Your task to perform on an android device: Search for logitech g pro on walmart, select the first entry, add it to the cart, then select checkout. Image 0: 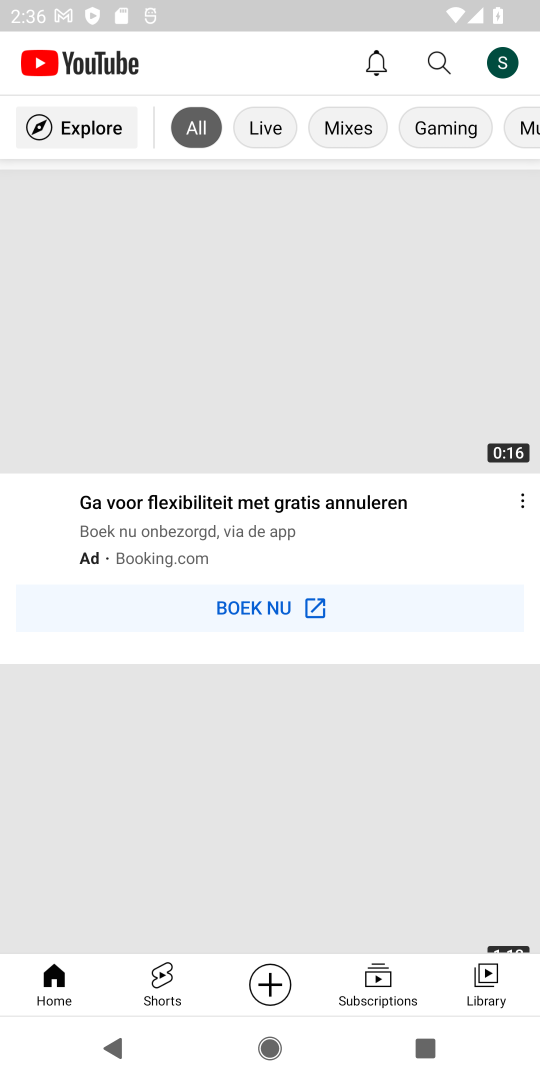
Step 0: press home button
Your task to perform on an android device: Search for logitech g pro on walmart, select the first entry, add it to the cart, then select checkout. Image 1: 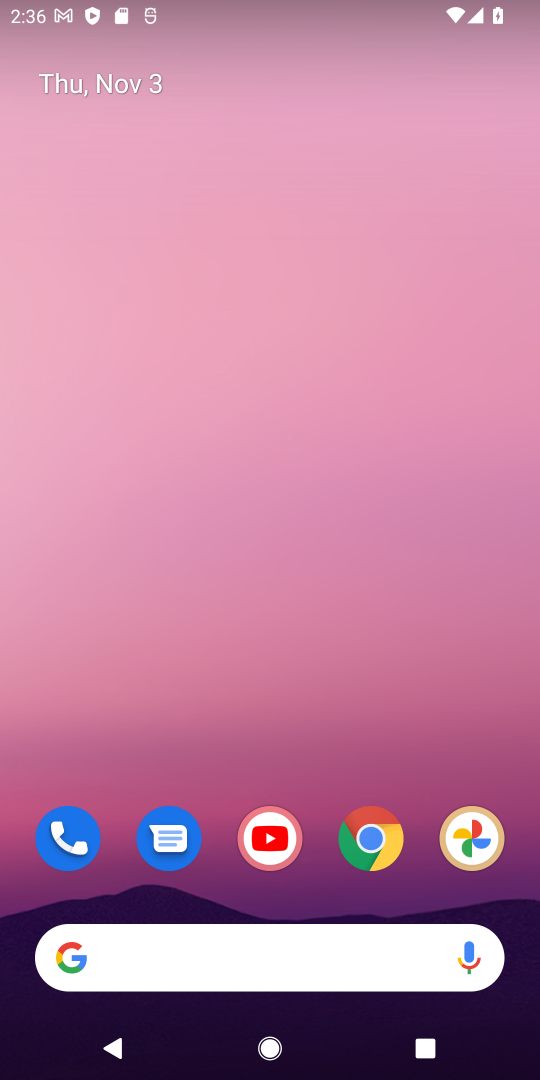
Step 1: drag from (317, 872) to (368, 93)
Your task to perform on an android device: Search for logitech g pro on walmart, select the first entry, add it to the cart, then select checkout. Image 2: 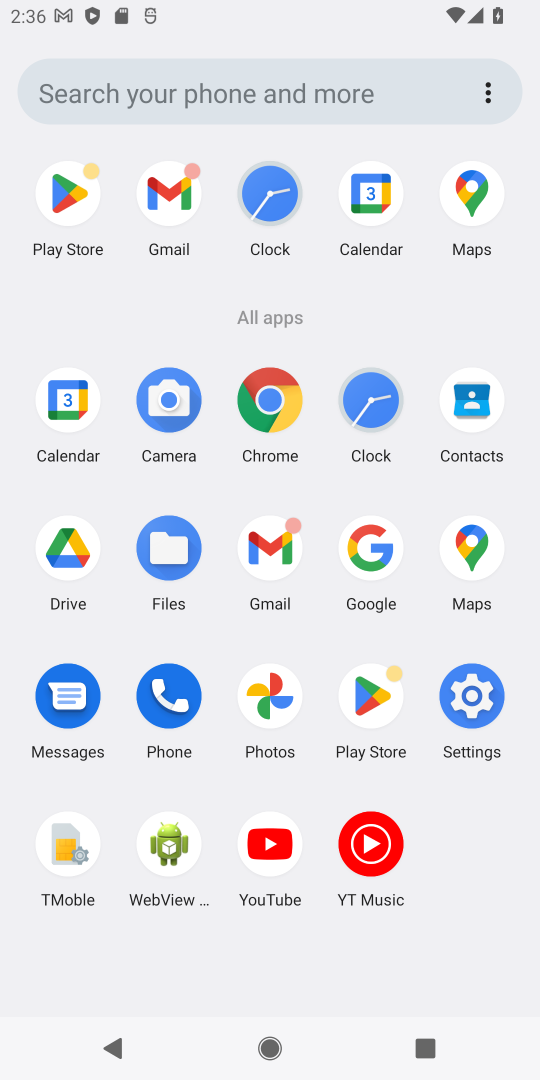
Step 2: click (272, 407)
Your task to perform on an android device: Search for logitech g pro on walmart, select the first entry, add it to the cart, then select checkout. Image 3: 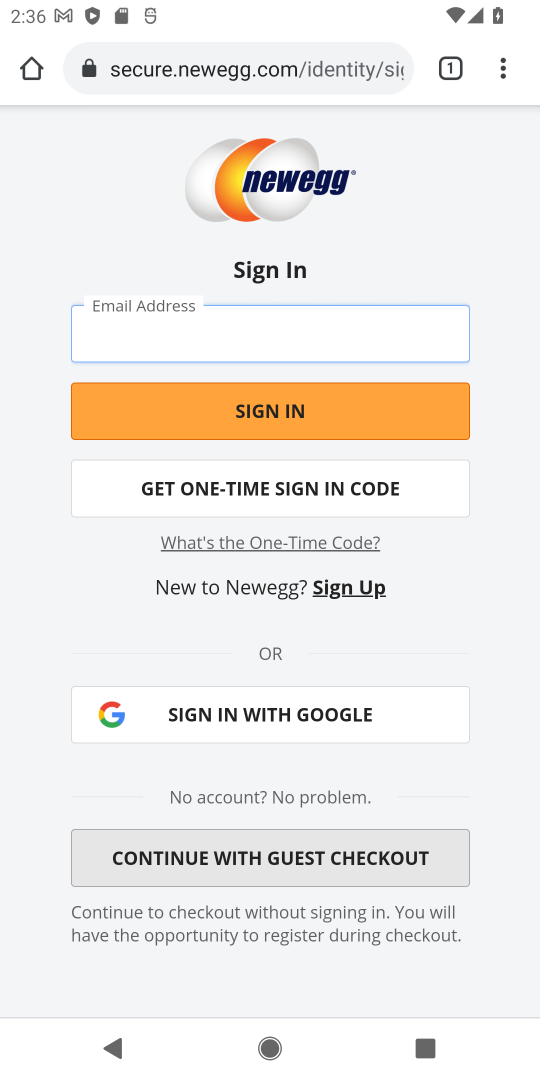
Step 3: click (265, 68)
Your task to perform on an android device: Search for logitech g pro on walmart, select the first entry, add it to the cart, then select checkout. Image 4: 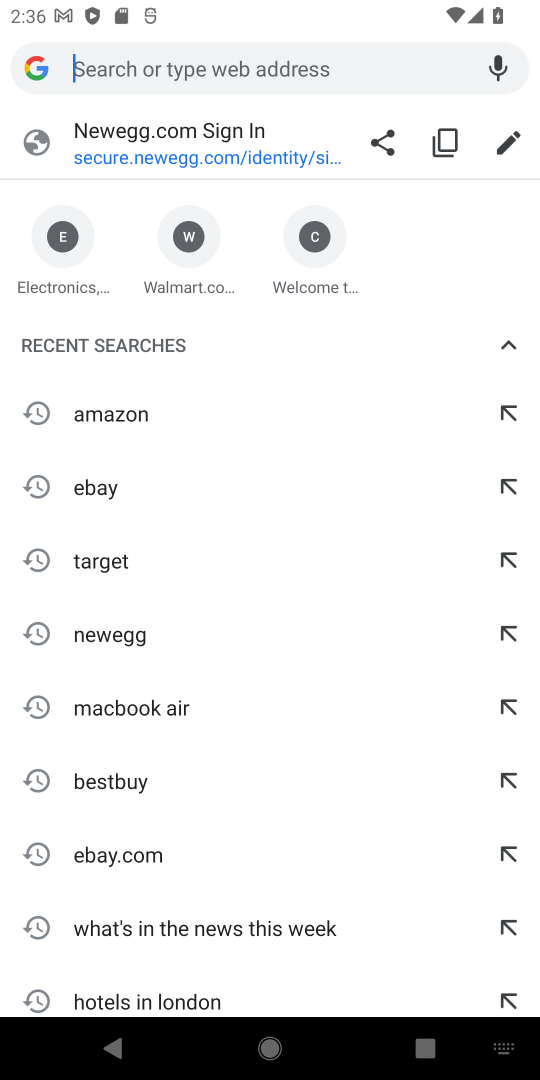
Step 4: type "walmart.com"
Your task to perform on an android device: Search for logitech g pro on walmart, select the first entry, add it to the cart, then select checkout. Image 5: 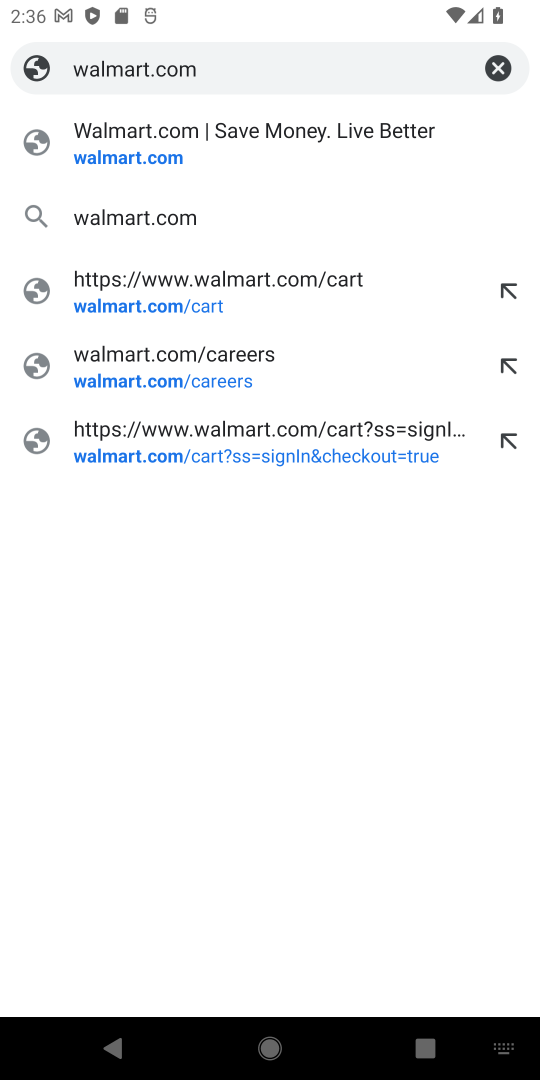
Step 5: press enter
Your task to perform on an android device: Search for logitech g pro on walmart, select the first entry, add it to the cart, then select checkout. Image 6: 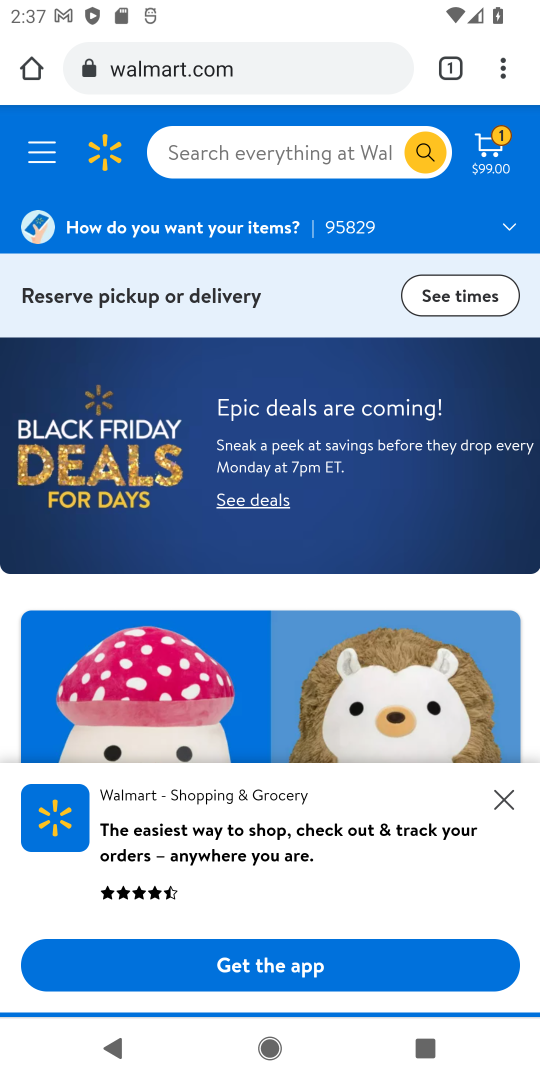
Step 6: click (233, 160)
Your task to perform on an android device: Search for logitech g pro on walmart, select the first entry, add it to the cart, then select checkout. Image 7: 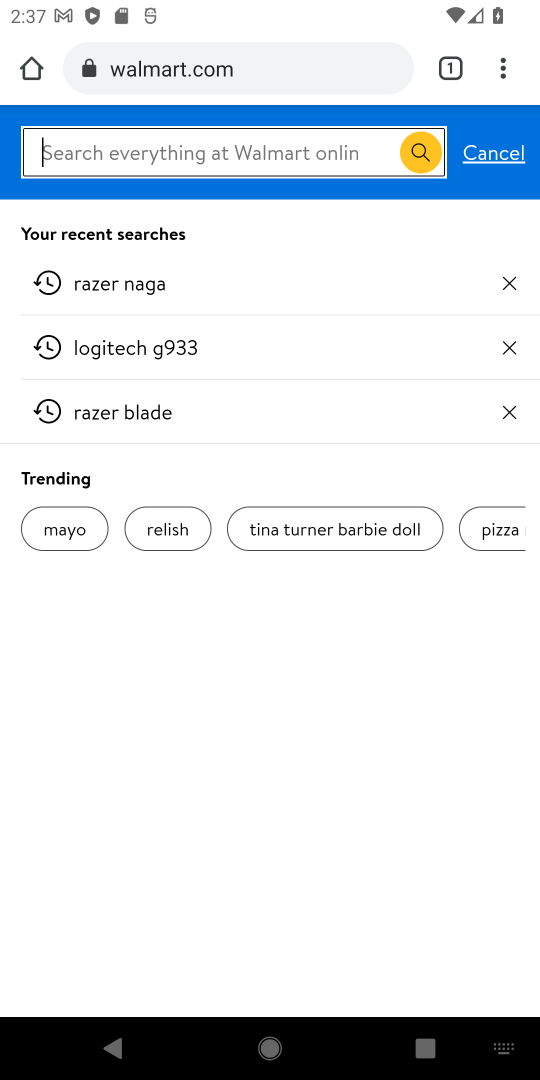
Step 7: type "logitech g pro"
Your task to perform on an android device: Search for logitech g pro on walmart, select the first entry, add it to the cart, then select checkout. Image 8: 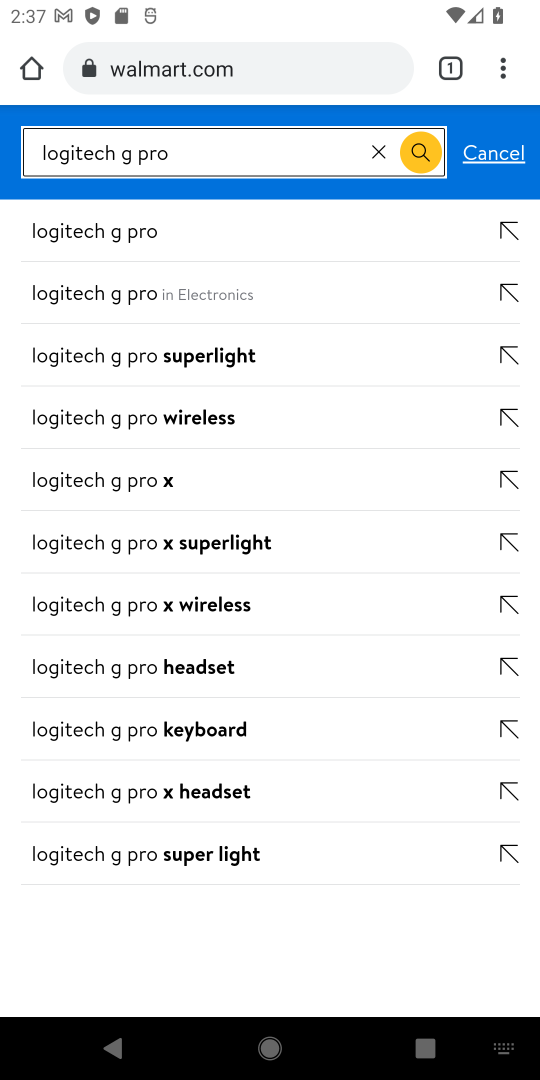
Step 8: press enter
Your task to perform on an android device: Search for logitech g pro on walmart, select the first entry, add it to the cart, then select checkout. Image 9: 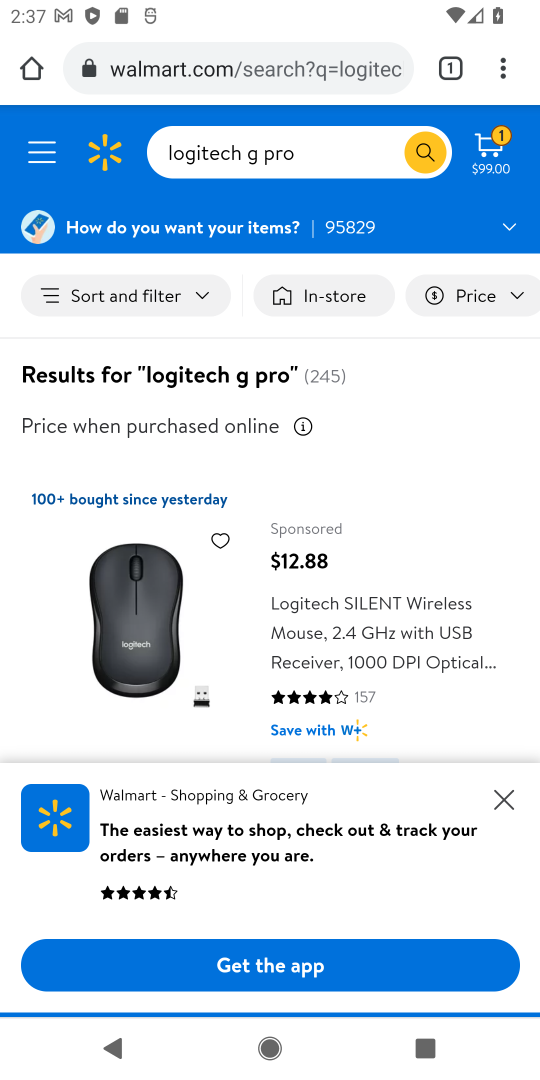
Step 9: drag from (436, 673) to (509, 81)
Your task to perform on an android device: Search for logitech g pro on walmart, select the first entry, add it to the cart, then select checkout. Image 10: 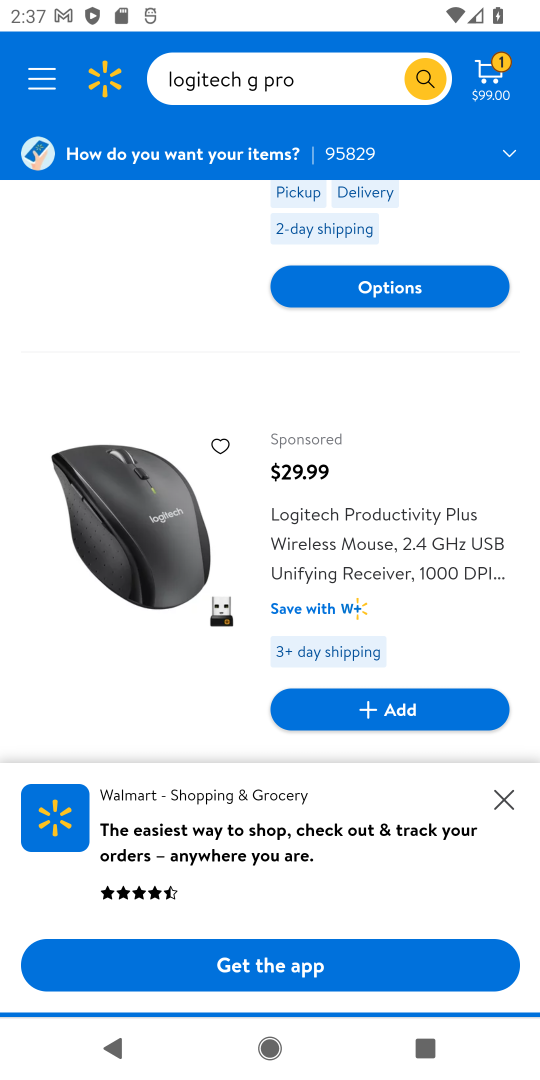
Step 10: drag from (423, 595) to (434, 133)
Your task to perform on an android device: Search for logitech g pro on walmart, select the first entry, add it to the cart, then select checkout. Image 11: 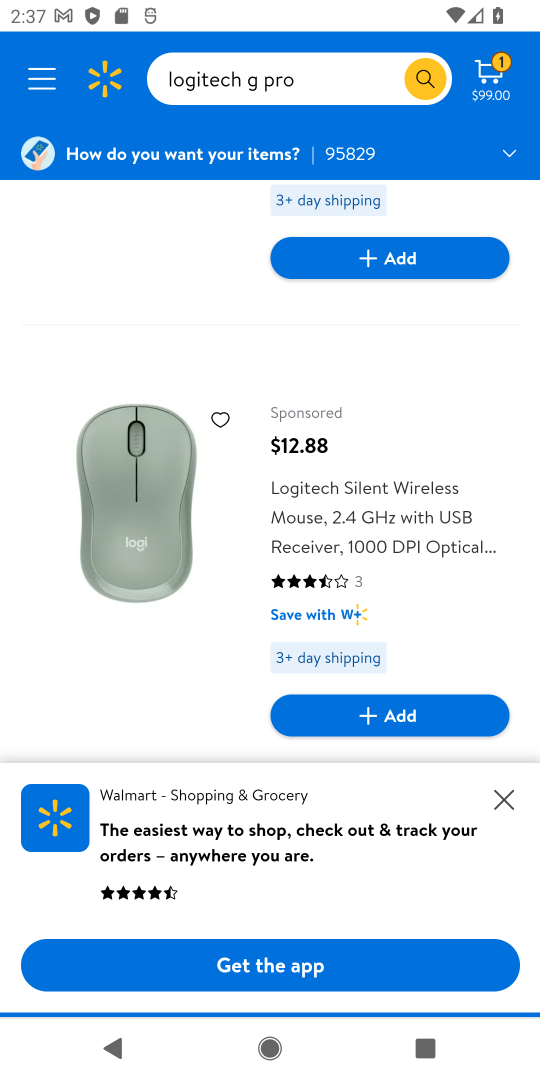
Step 11: drag from (437, 571) to (455, 125)
Your task to perform on an android device: Search for logitech g pro on walmart, select the first entry, add it to the cart, then select checkout. Image 12: 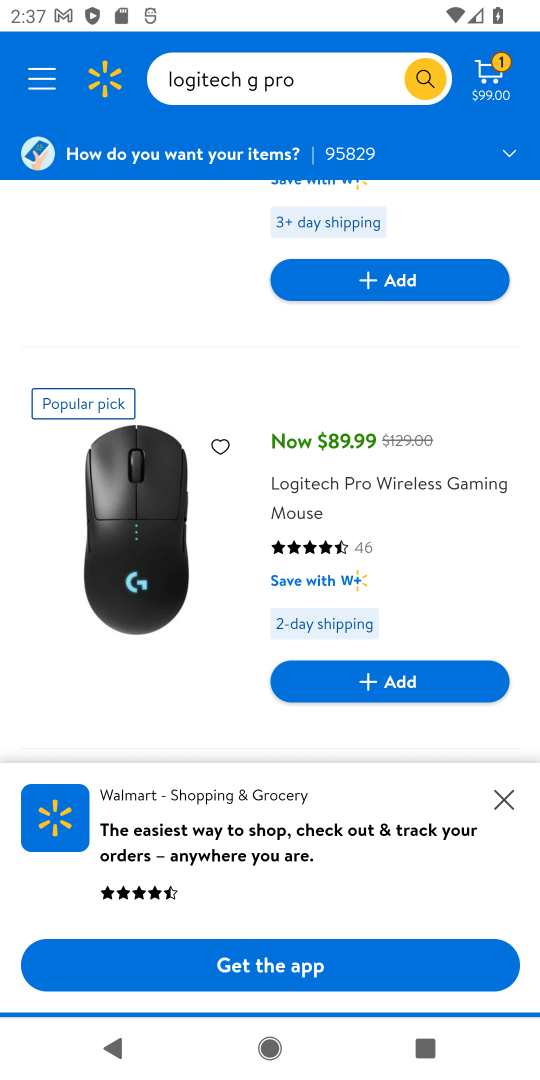
Step 12: click (440, 681)
Your task to perform on an android device: Search for logitech g pro on walmart, select the first entry, add it to the cart, then select checkout. Image 13: 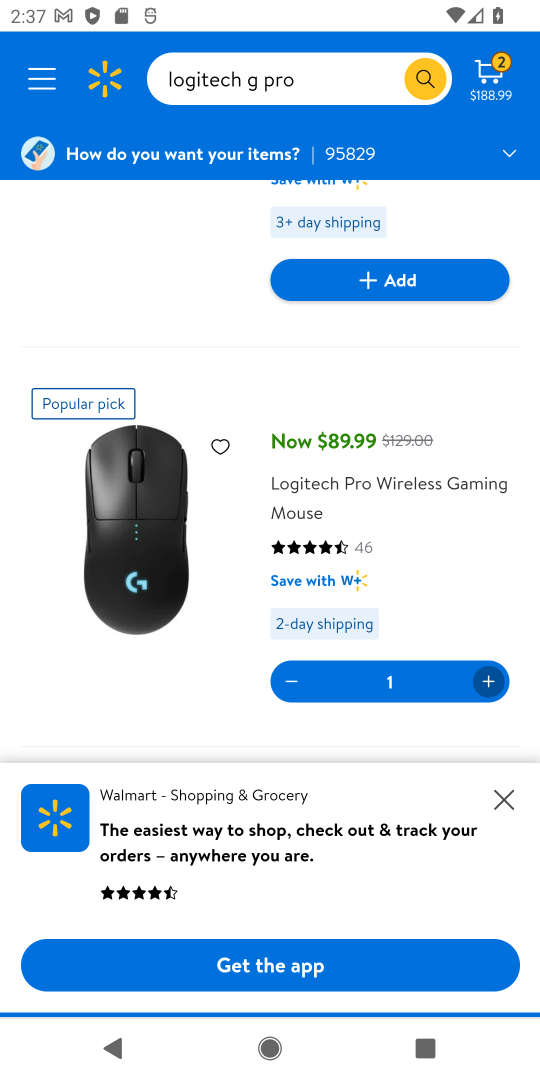
Step 13: click (299, 508)
Your task to perform on an android device: Search for logitech g pro on walmart, select the first entry, add it to the cart, then select checkout. Image 14: 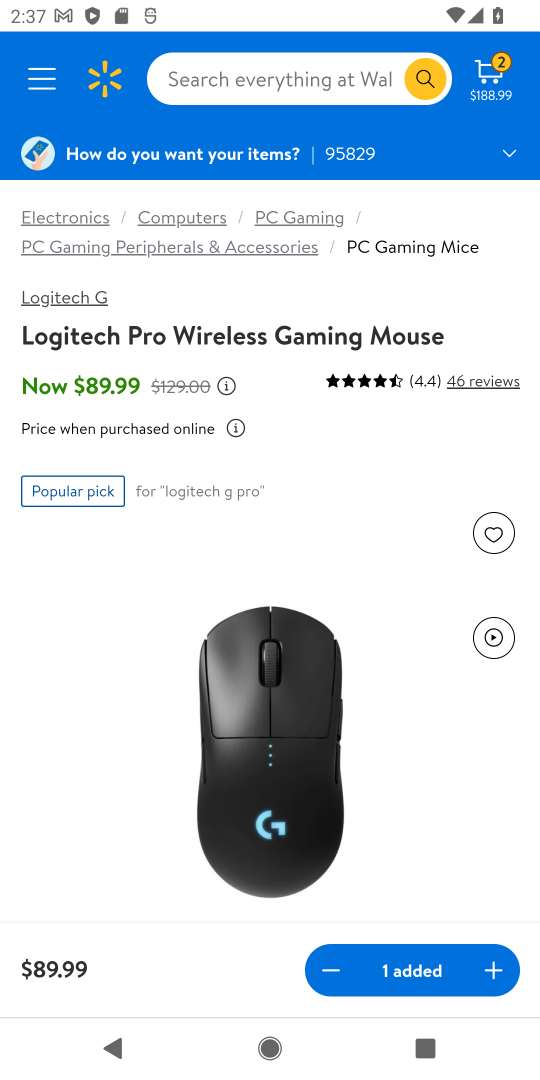
Step 14: drag from (424, 838) to (393, 338)
Your task to perform on an android device: Search for logitech g pro on walmart, select the first entry, add it to the cart, then select checkout. Image 15: 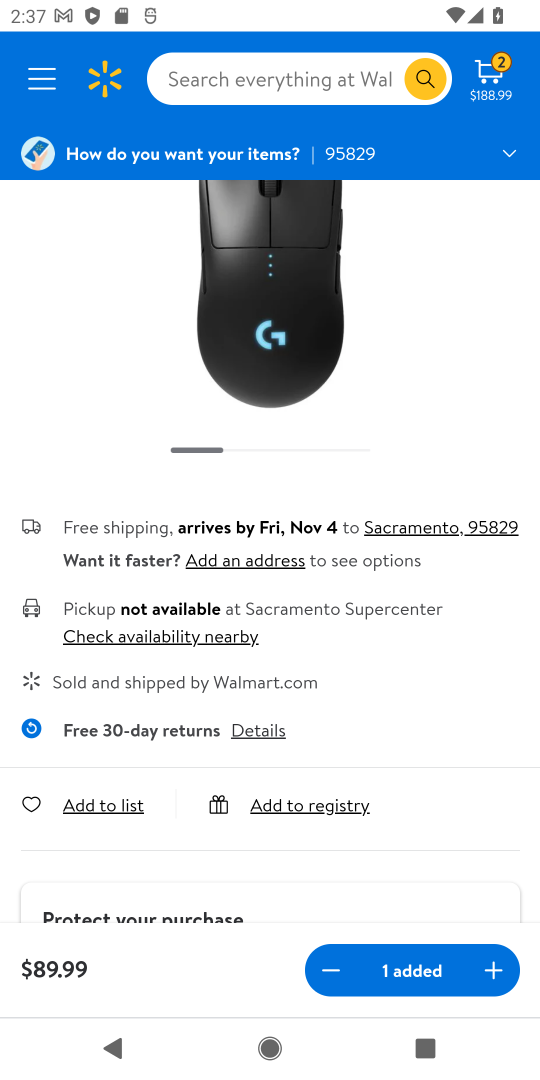
Step 15: drag from (404, 849) to (431, 328)
Your task to perform on an android device: Search for logitech g pro on walmart, select the first entry, add it to the cart, then select checkout. Image 16: 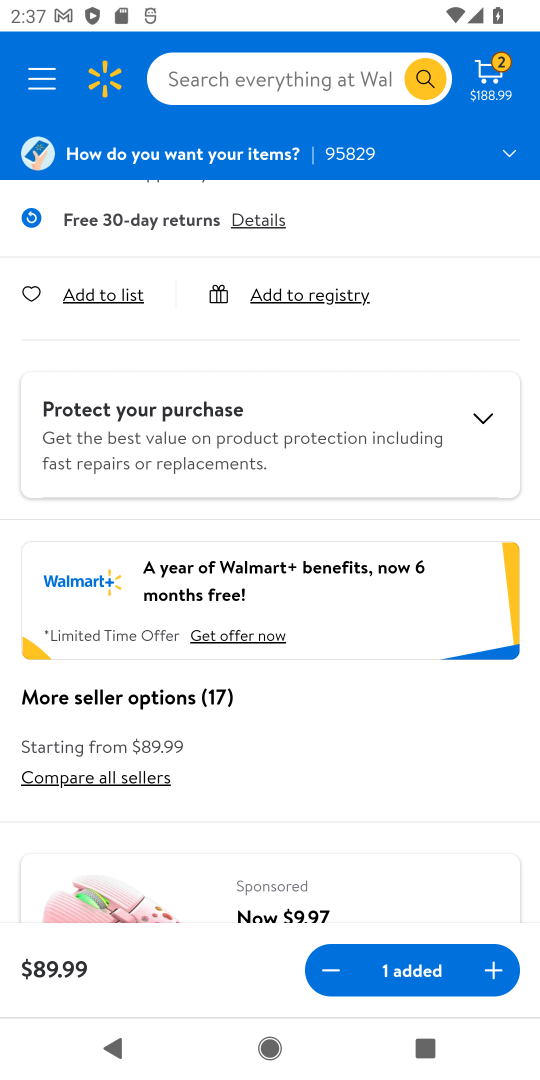
Step 16: drag from (336, 871) to (414, 440)
Your task to perform on an android device: Search for logitech g pro on walmart, select the first entry, add it to the cart, then select checkout. Image 17: 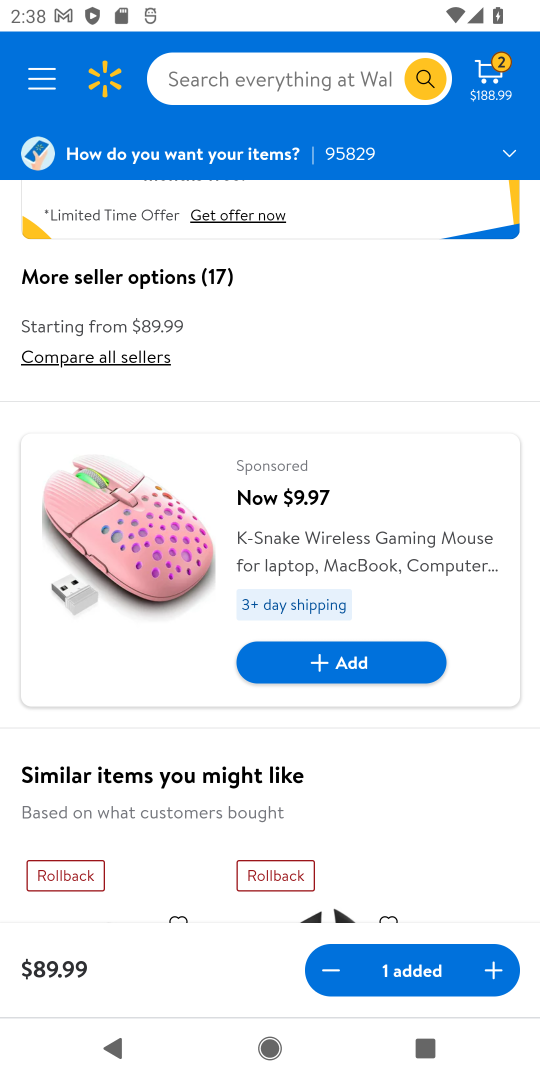
Step 17: drag from (380, 721) to (418, 560)
Your task to perform on an android device: Search for logitech g pro on walmart, select the first entry, add it to the cart, then select checkout. Image 18: 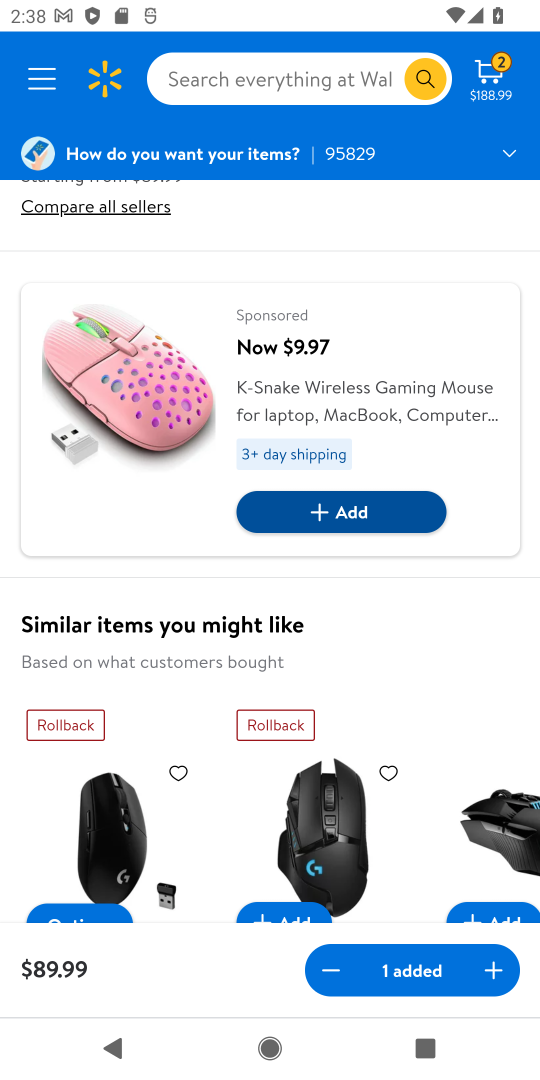
Step 18: drag from (413, 891) to (382, 306)
Your task to perform on an android device: Search for logitech g pro on walmart, select the first entry, add it to the cart, then select checkout. Image 19: 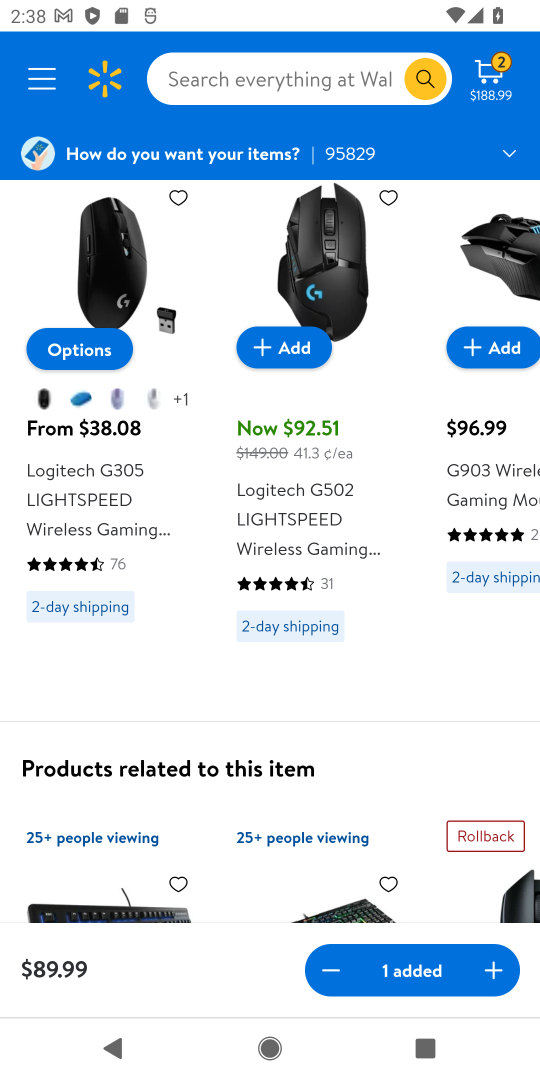
Step 19: drag from (320, 823) to (348, 342)
Your task to perform on an android device: Search for logitech g pro on walmart, select the first entry, add it to the cart, then select checkout. Image 20: 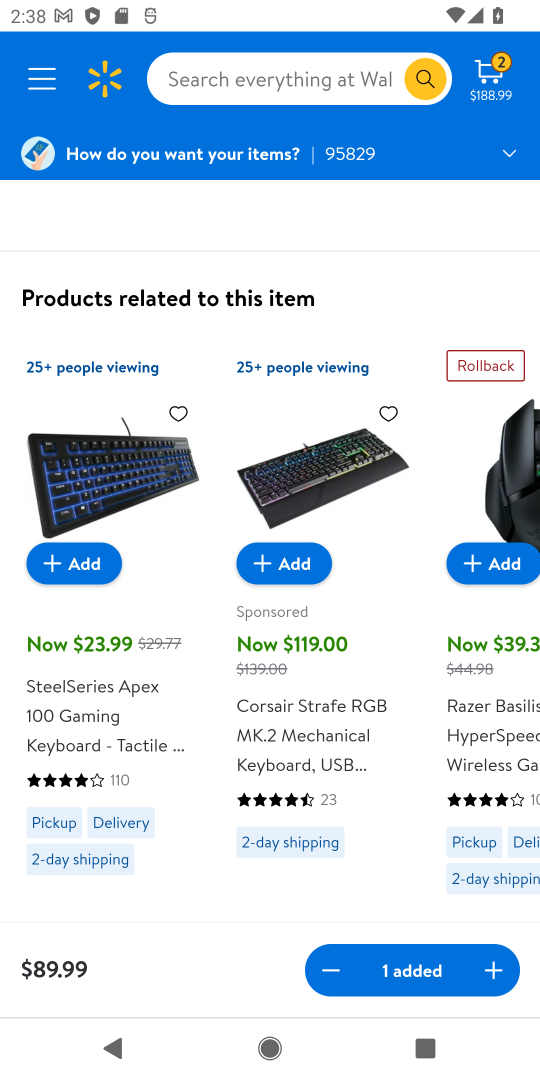
Step 20: drag from (198, 898) to (259, 513)
Your task to perform on an android device: Search for logitech g pro on walmart, select the first entry, add it to the cart, then select checkout. Image 21: 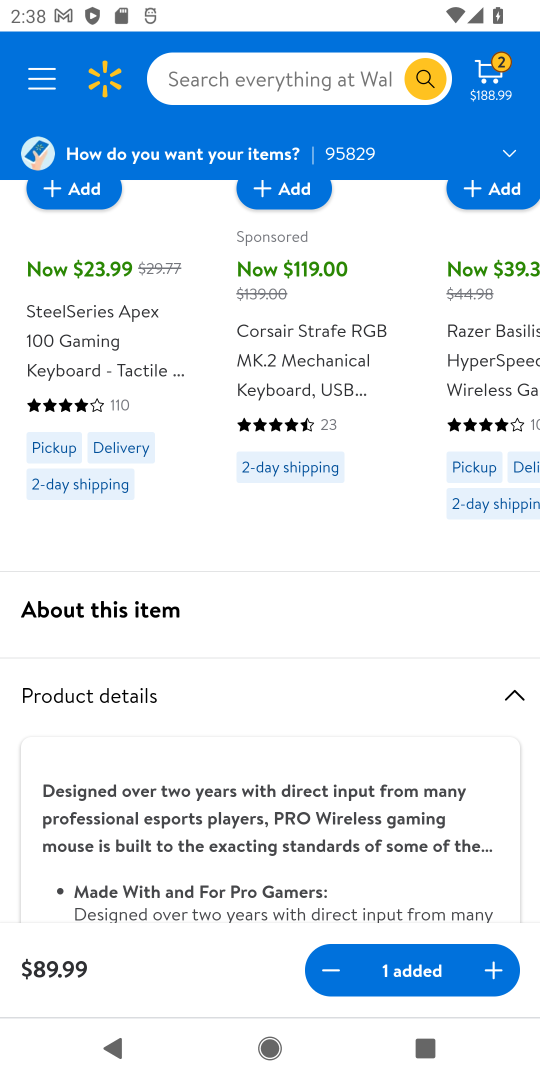
Step 21: drag from (342, 905) to (317, 582)
Your task to perform on an android device: Search for logitech g pro on walmart, select the first entry, add it to the cart, then select checkout. Image 22: 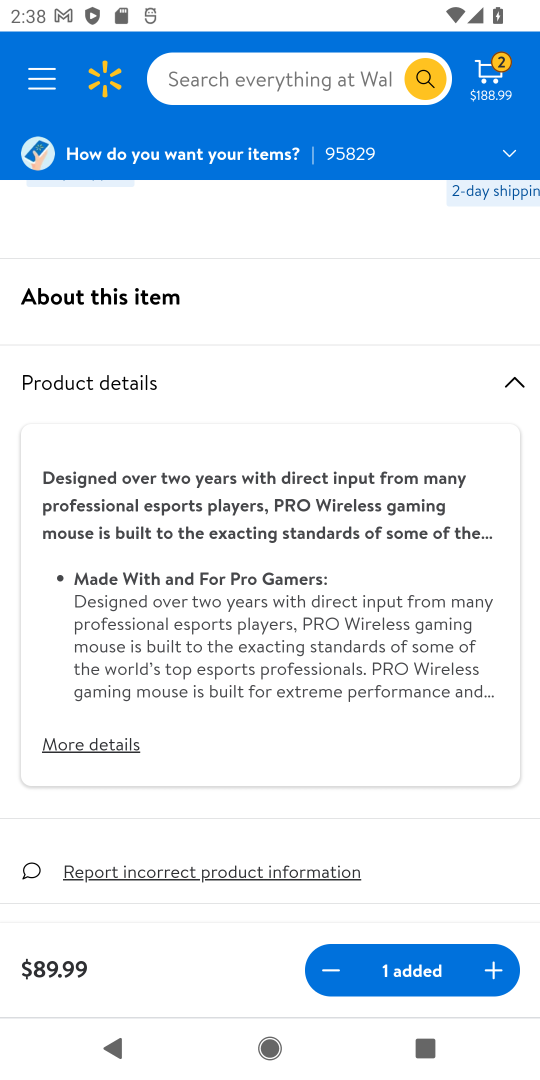
Step 22: drag from (284, 827) to (325, 518)
Your task to perform on an android device: Search for logitech g pro on walmart, select the first entry, add it to the cart, then select checkout. Image 23: 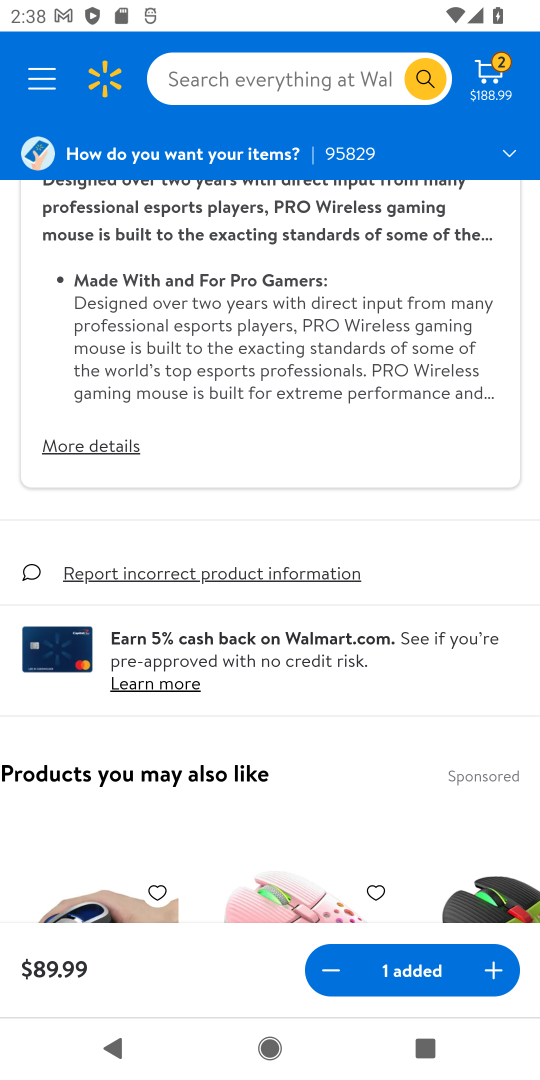
Step 23: drag from (319, 884) to (275, 582)
Your task to perform on an android device: Search for logitech g pro on walmart, select the first entry, add it to the cart, then select checkout. Image 24: 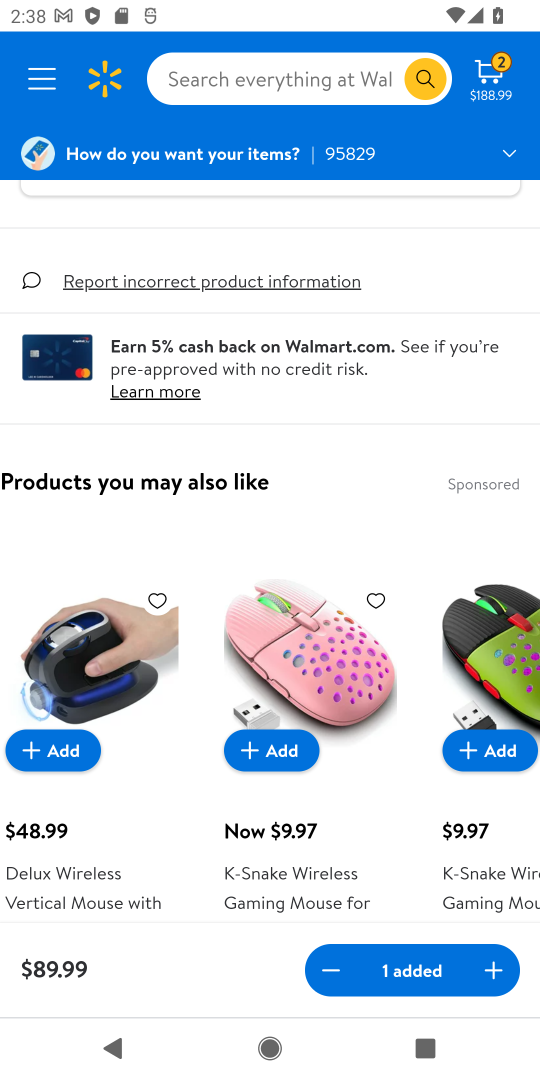
Step 24: drag from (197, 895) to (272, 681)
Your task to perform on an android device: Search for logitech g pro on walmart, select the first entry, add it to the cart, then select checkout. Image 25: 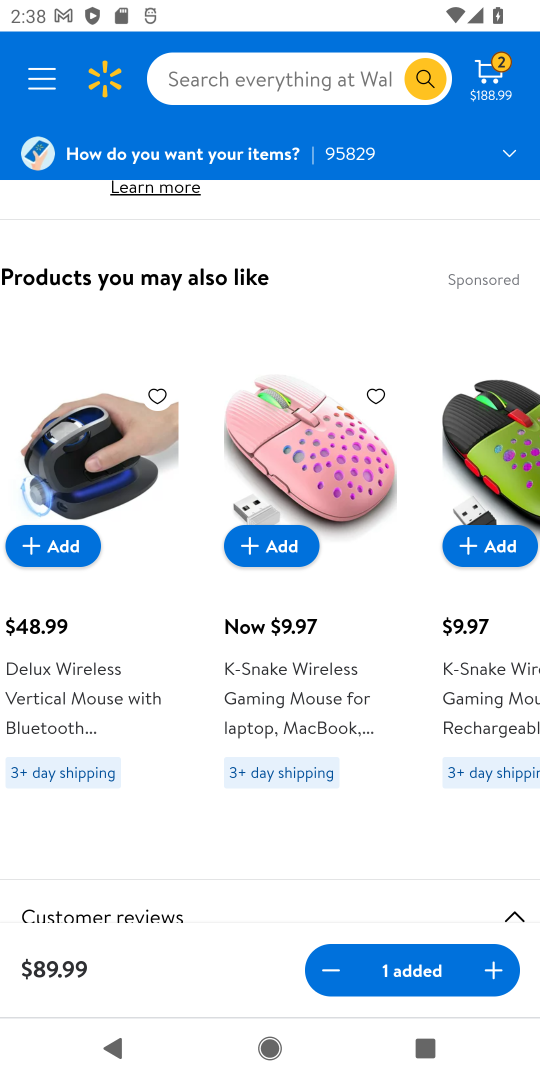
Step 25: click (492, 72)
Your task to perform on an android device: Search for logitech g pro on walmart, select the first entry, add it to the cart, then select checkout. Image 26: 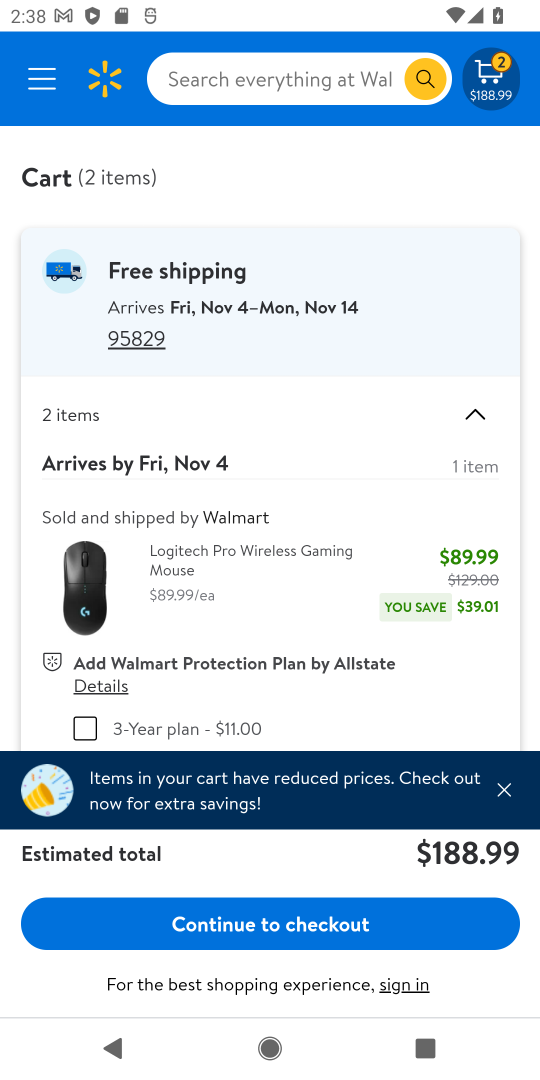
Step 26: click (274, 940)
Your task to perform on an android device: Search for logitech g pro on walmart, select the first entry, add it to the cart, then select checkout. Image 27: 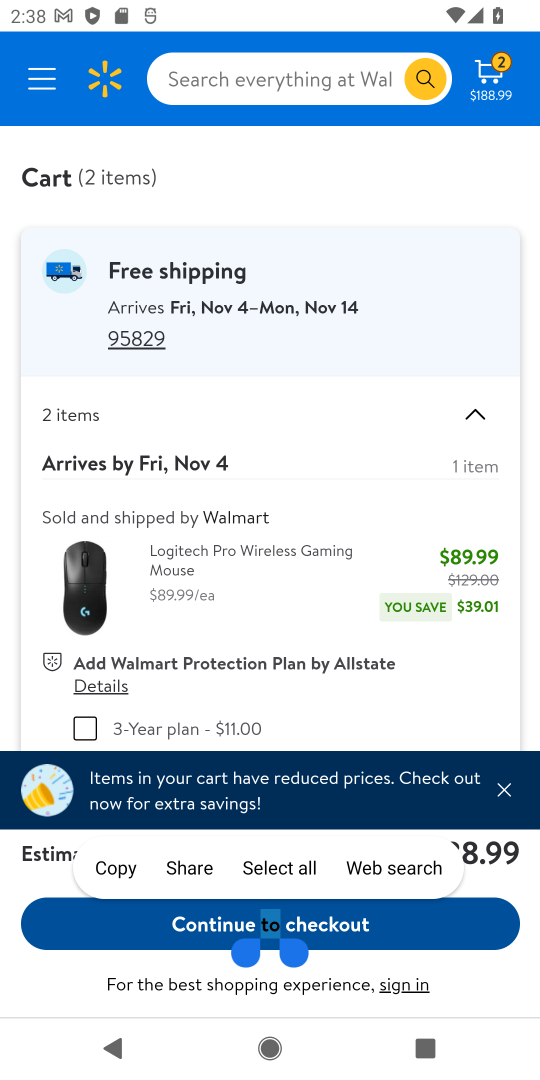
Step 27: click (274, 922)
Your task to perform on an android device: Search for logitech g pro on walmart, select the first entry, add it to the cart, then select checkout. Image 28: 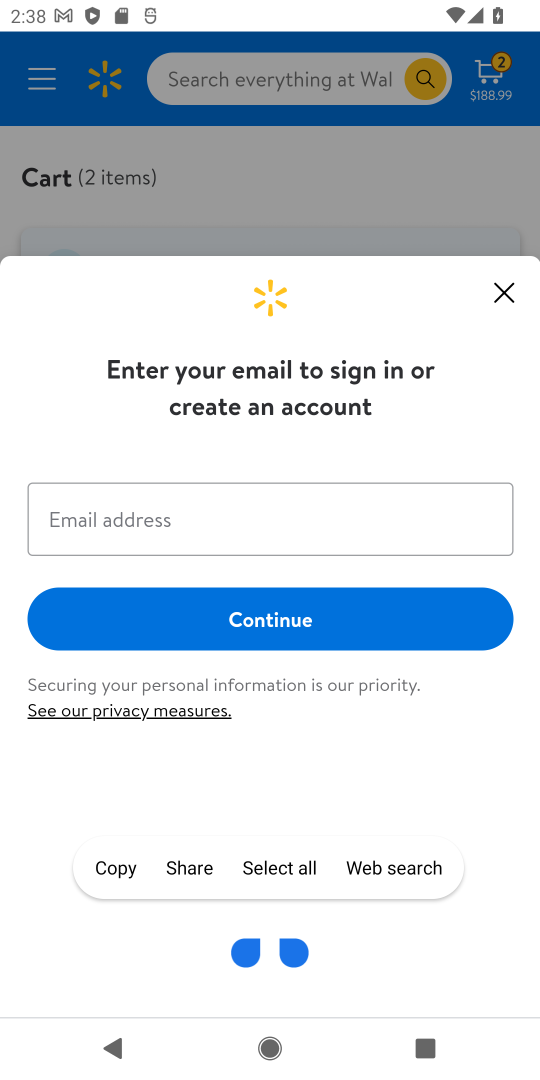
Step 28: task complete